Your task to perform on an android device: add a label to a message in the gmail app Image 0: 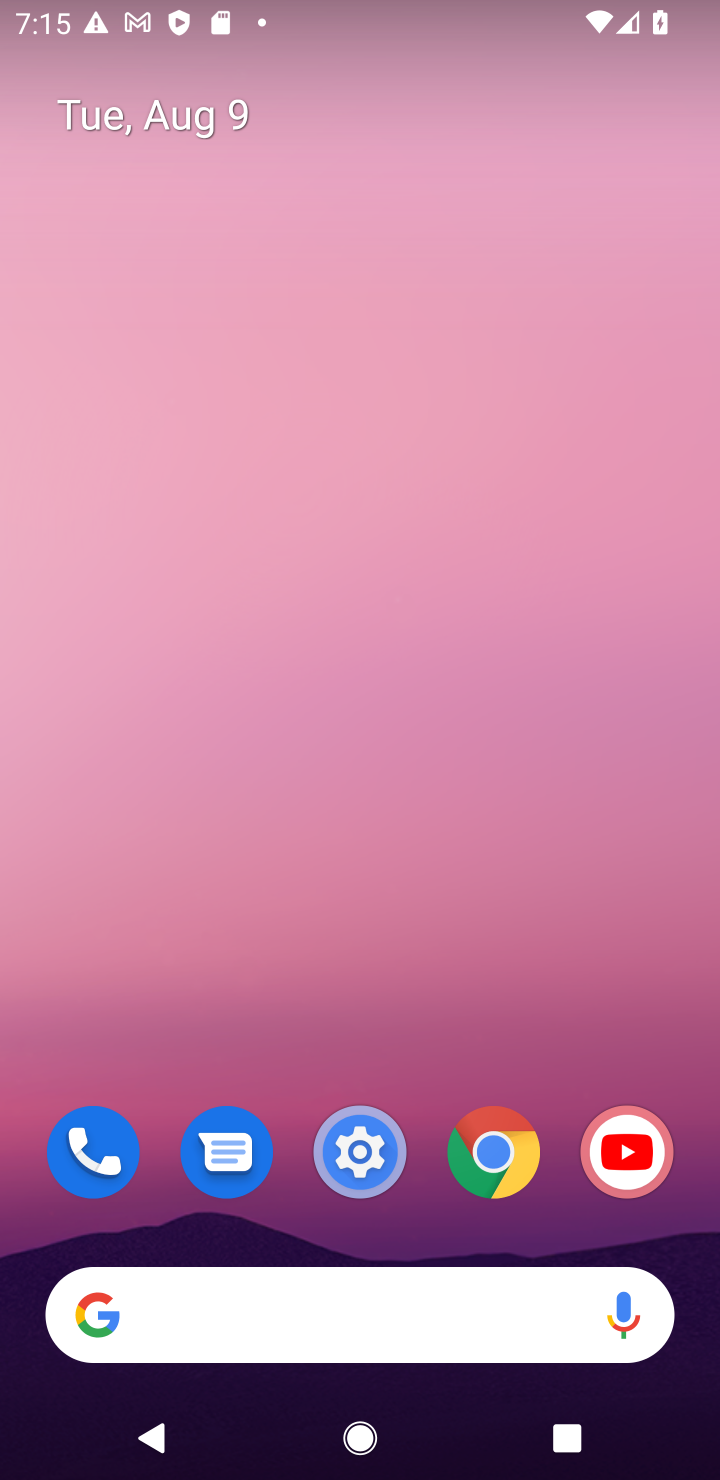
Step 0: drag from (340, 1014) to (476, 21)
Your task to perform on an android device: add a label to a message in the gmail app Image 1: 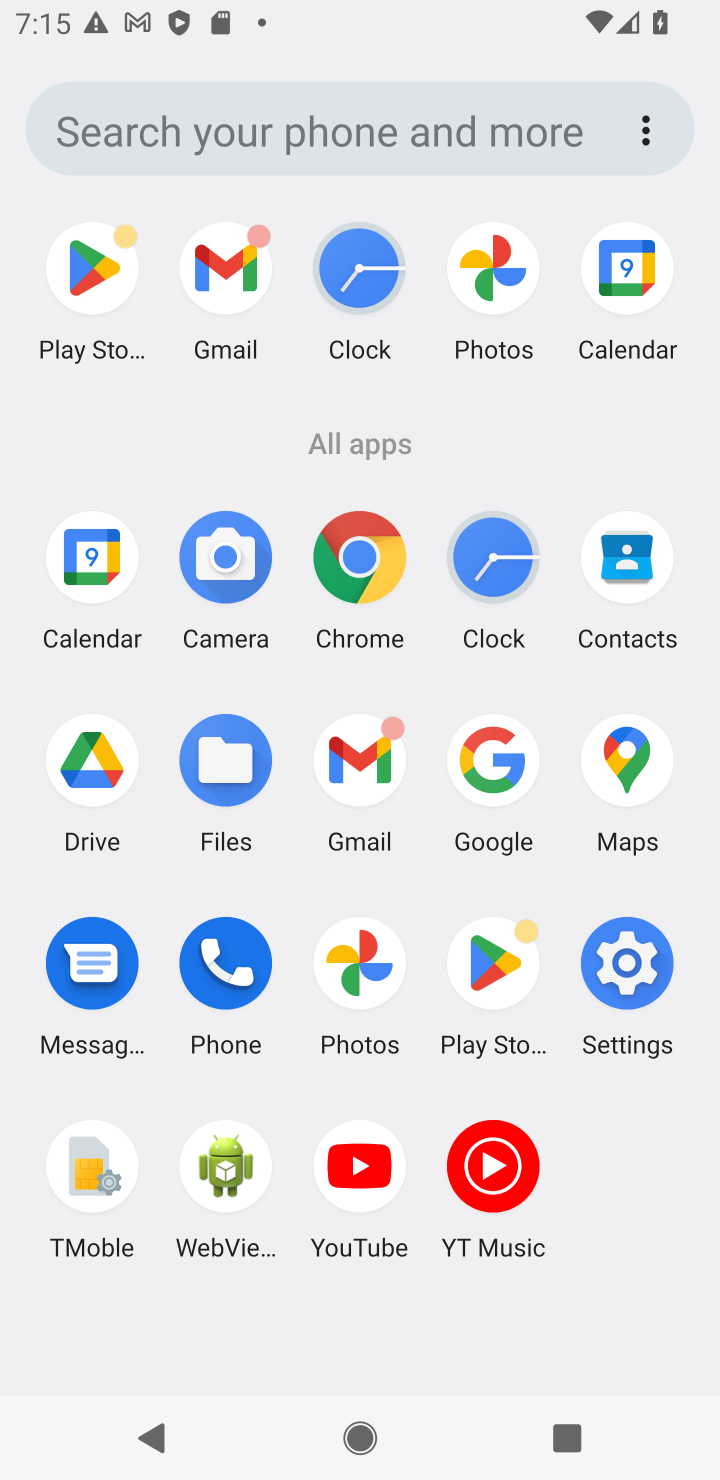
Step 1: click (244, 239)
Your task to perform on an android device: add a label to a message in the gmail app Image 2: 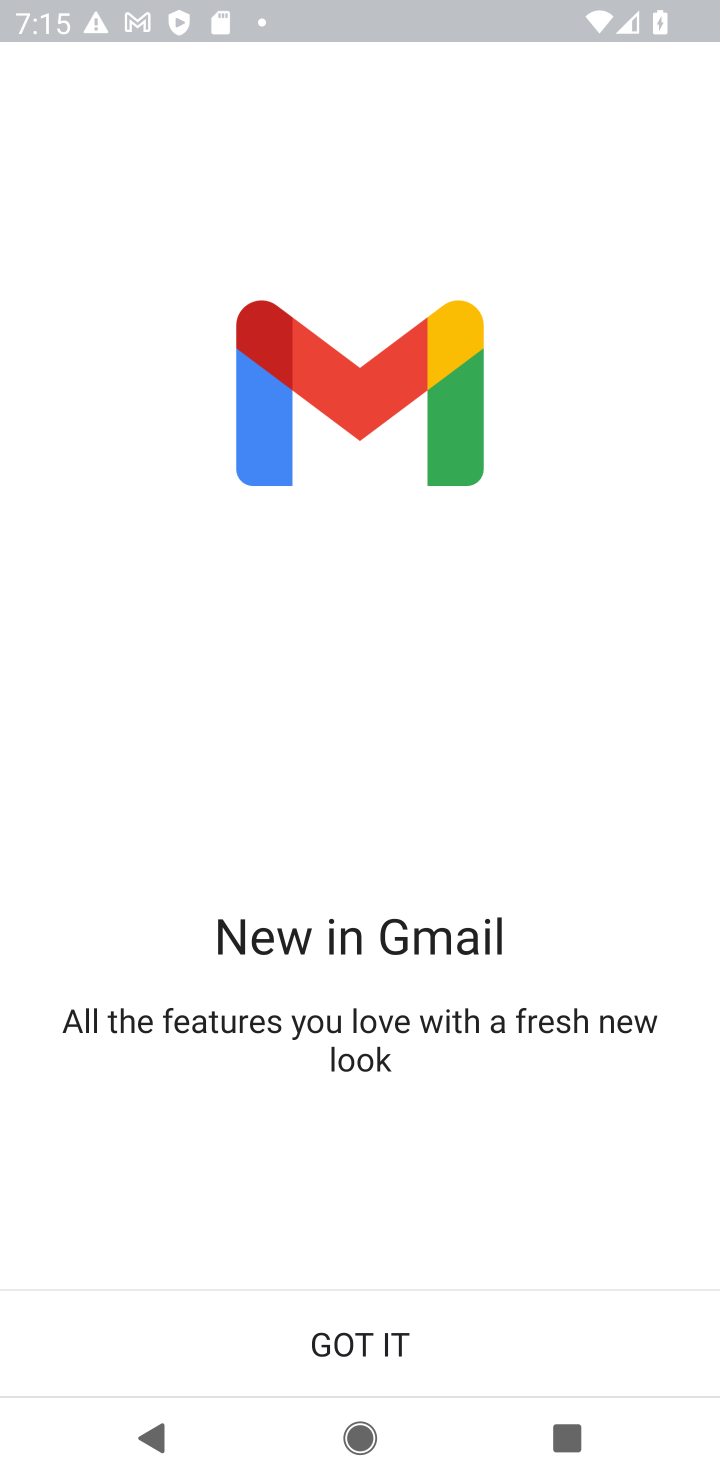
Step 2: click (342, 1372)
Your task to perform on an android device: add a label to a message in the gmail app Image 3: 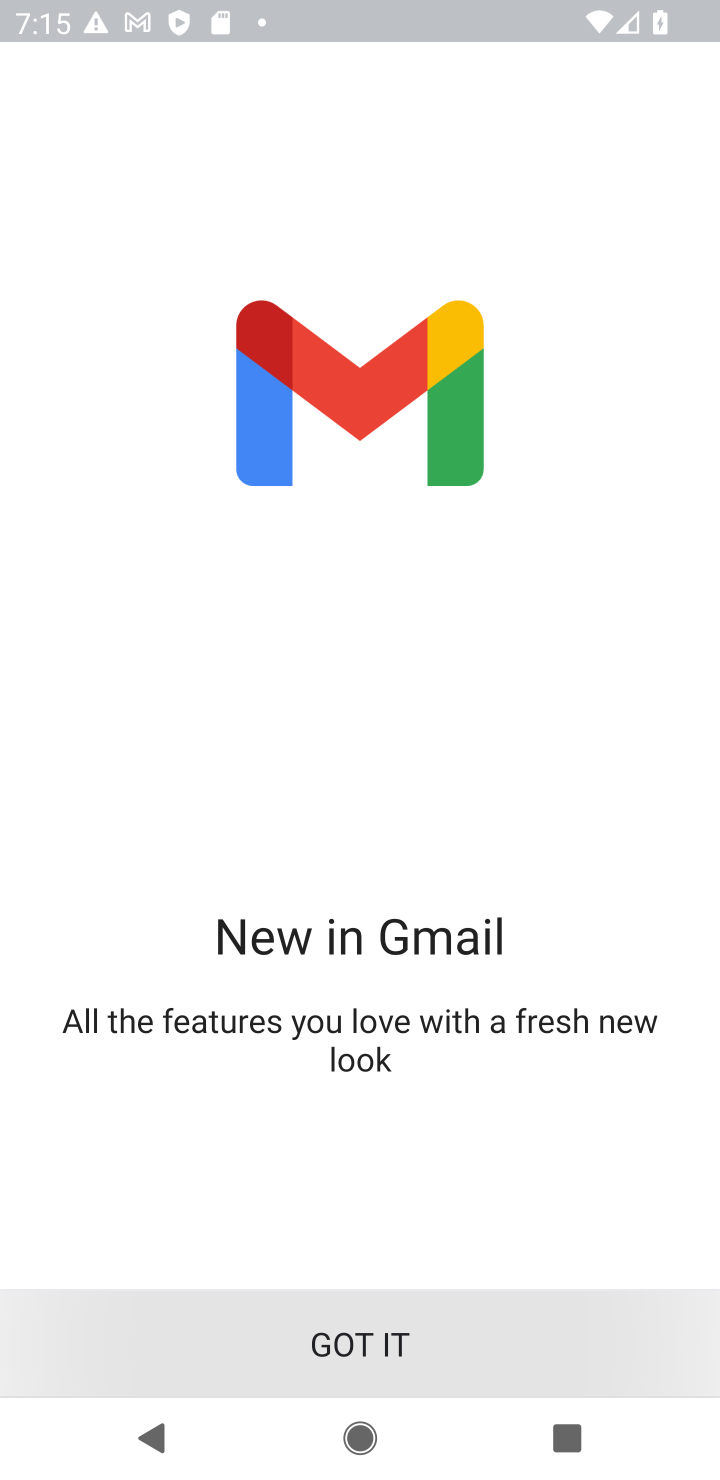
Step 3: click (342, 1372)
Your task to perform on an android device: add a label to a message in the gmail app Image 4: 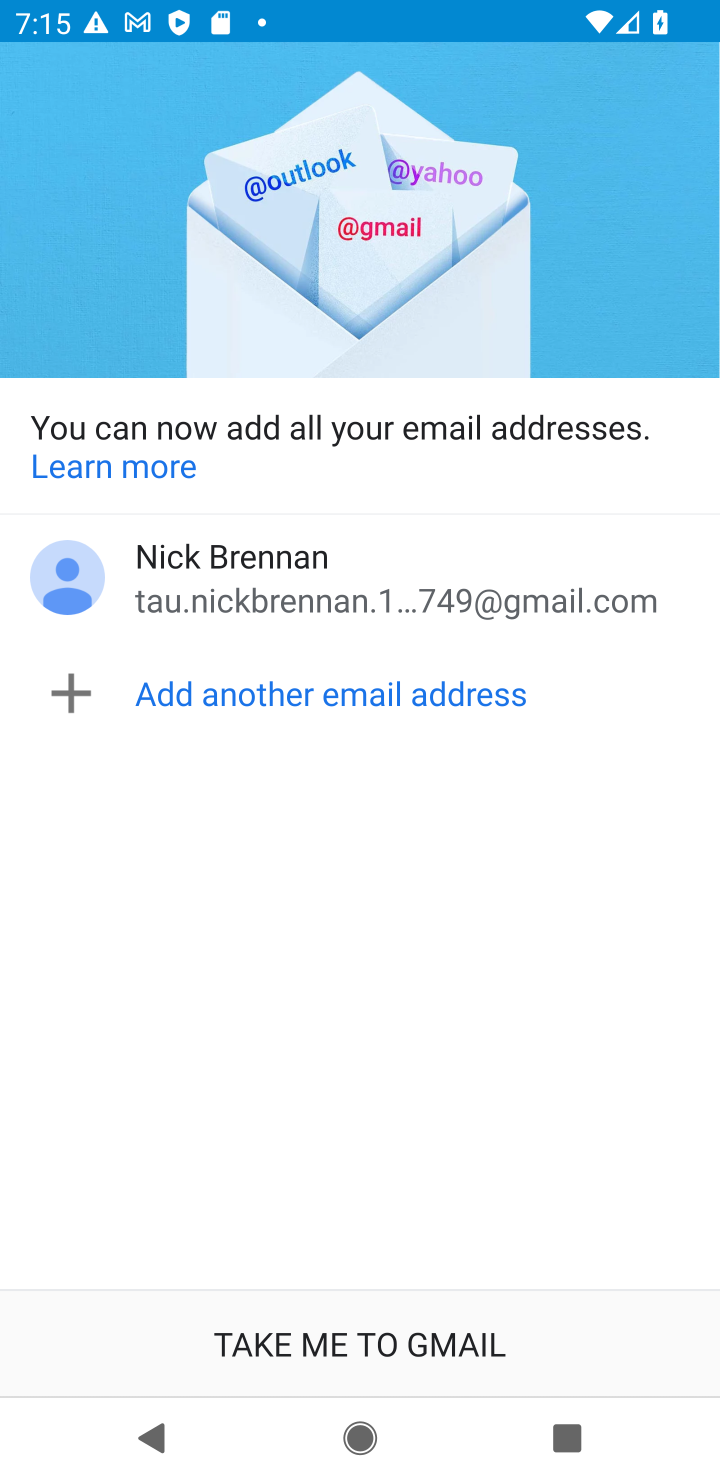
Step 4: click (337, 1374)
Your task to perform on an android device: add a label to a message in the gmail app Image 5: 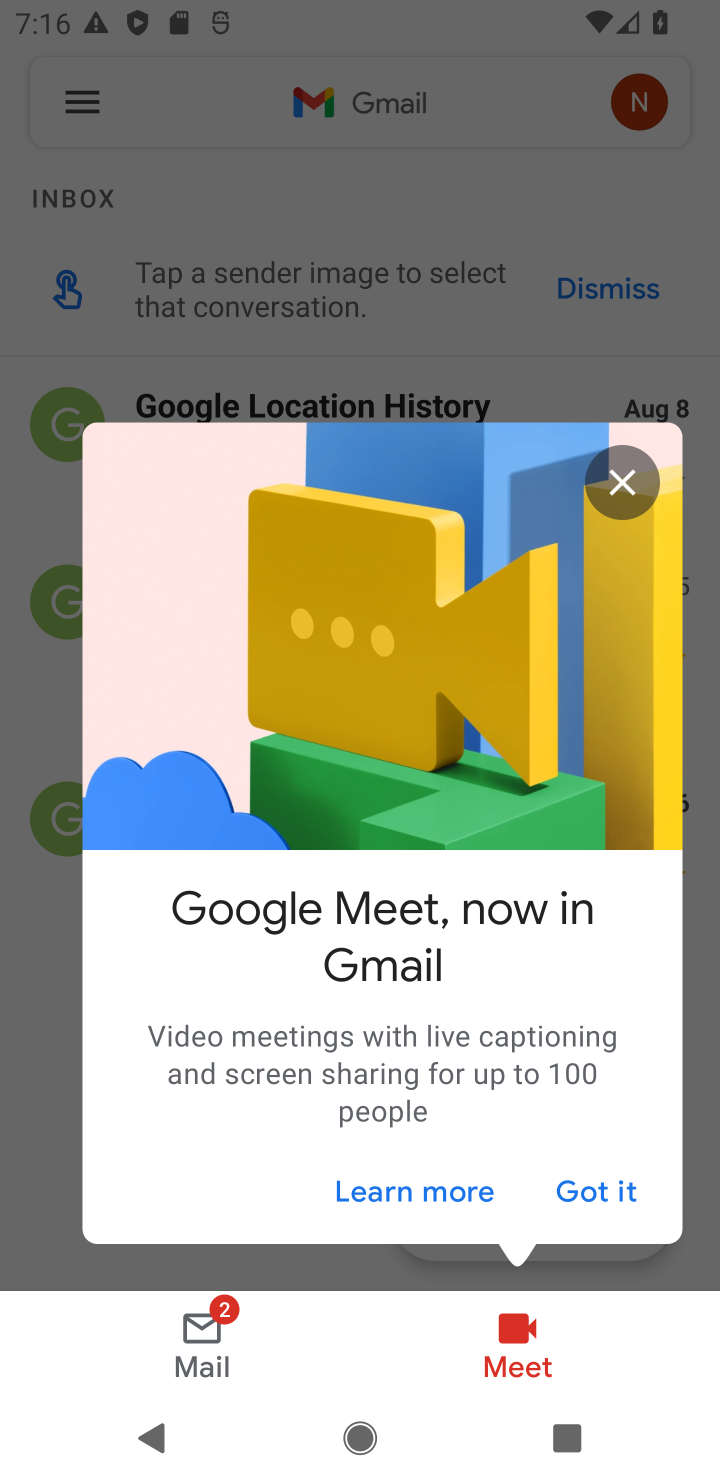
Step 5: click (583, 1180)
Your task to perform on an android device: add a label to a message in the gmail app Image 6: 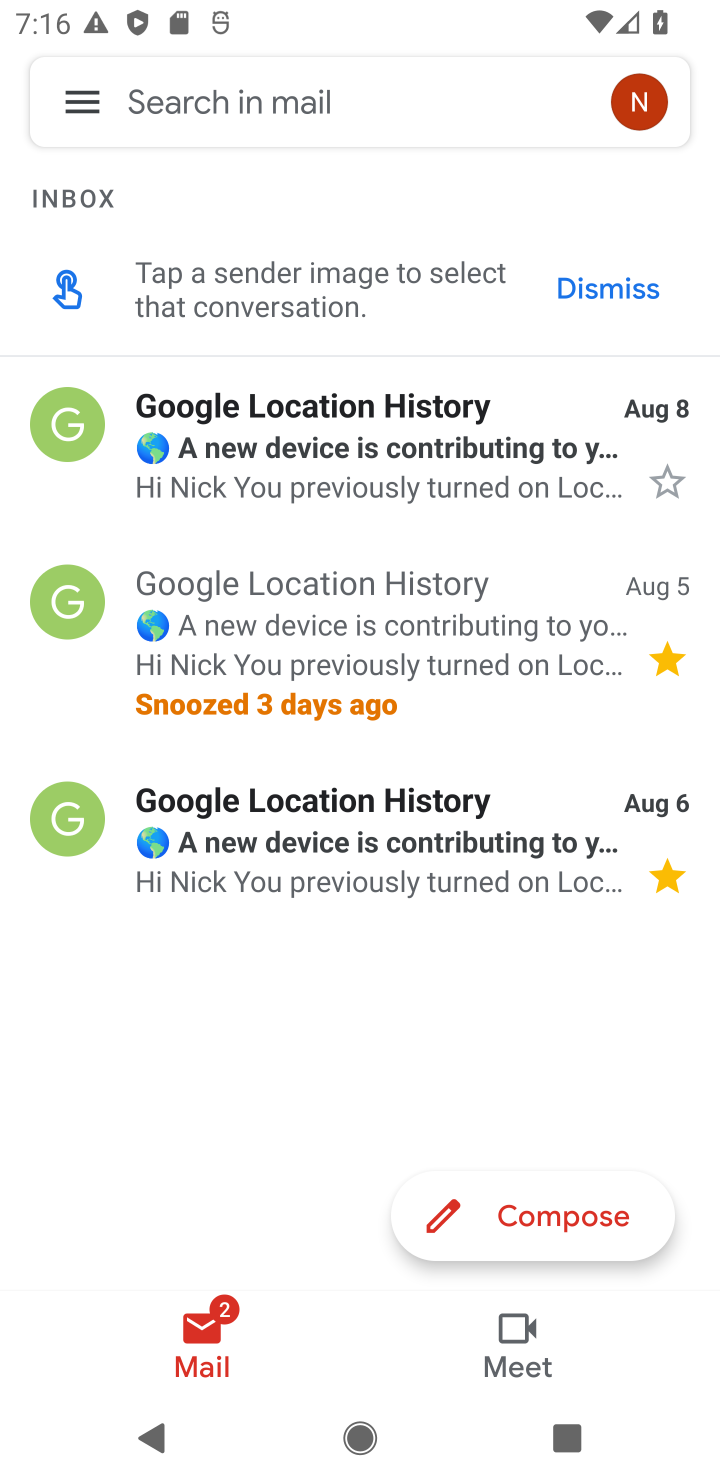
Step 6: click (74, 825)
Your task to perform on an android device: add a label to a message in the gmail app Image 7: 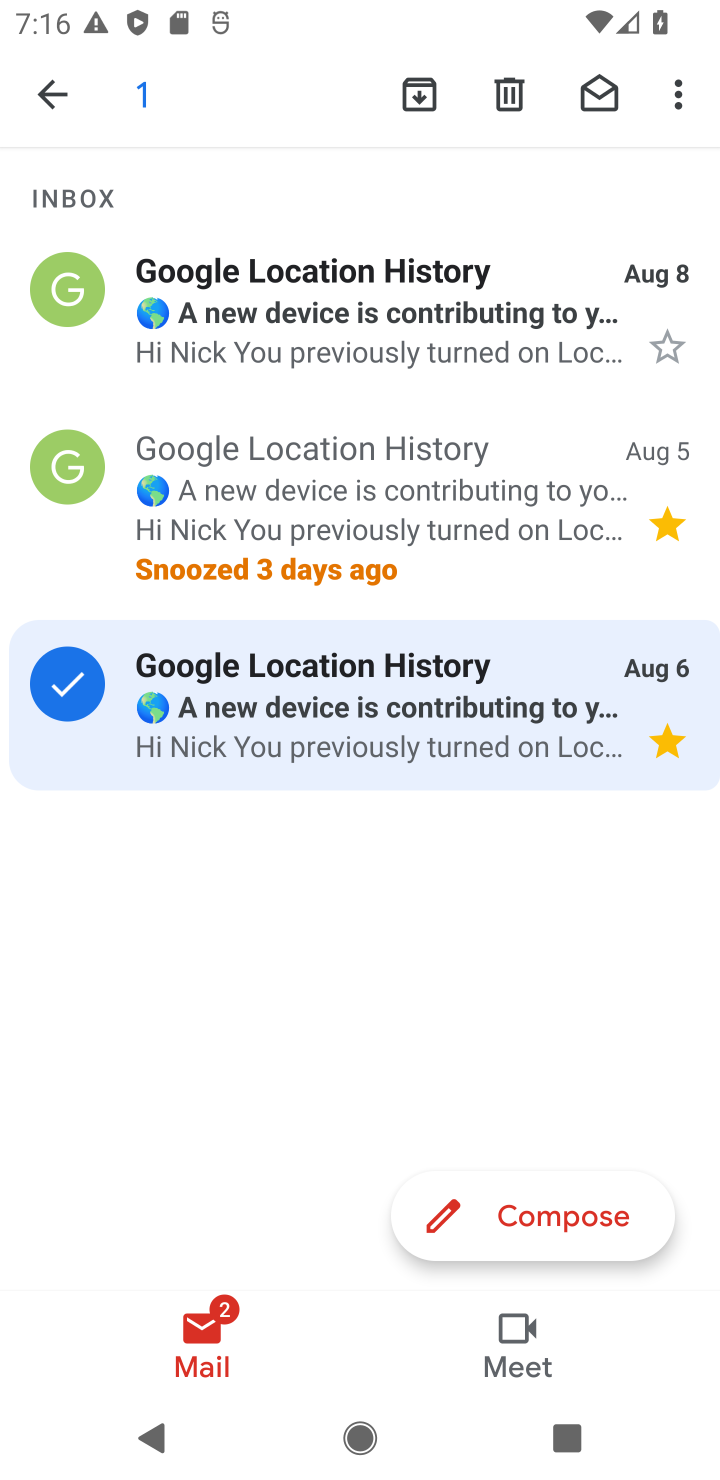
Step 7: click (685, 96)
Your task to perform on an android device: add a label to a message in the gmail app Image 8: 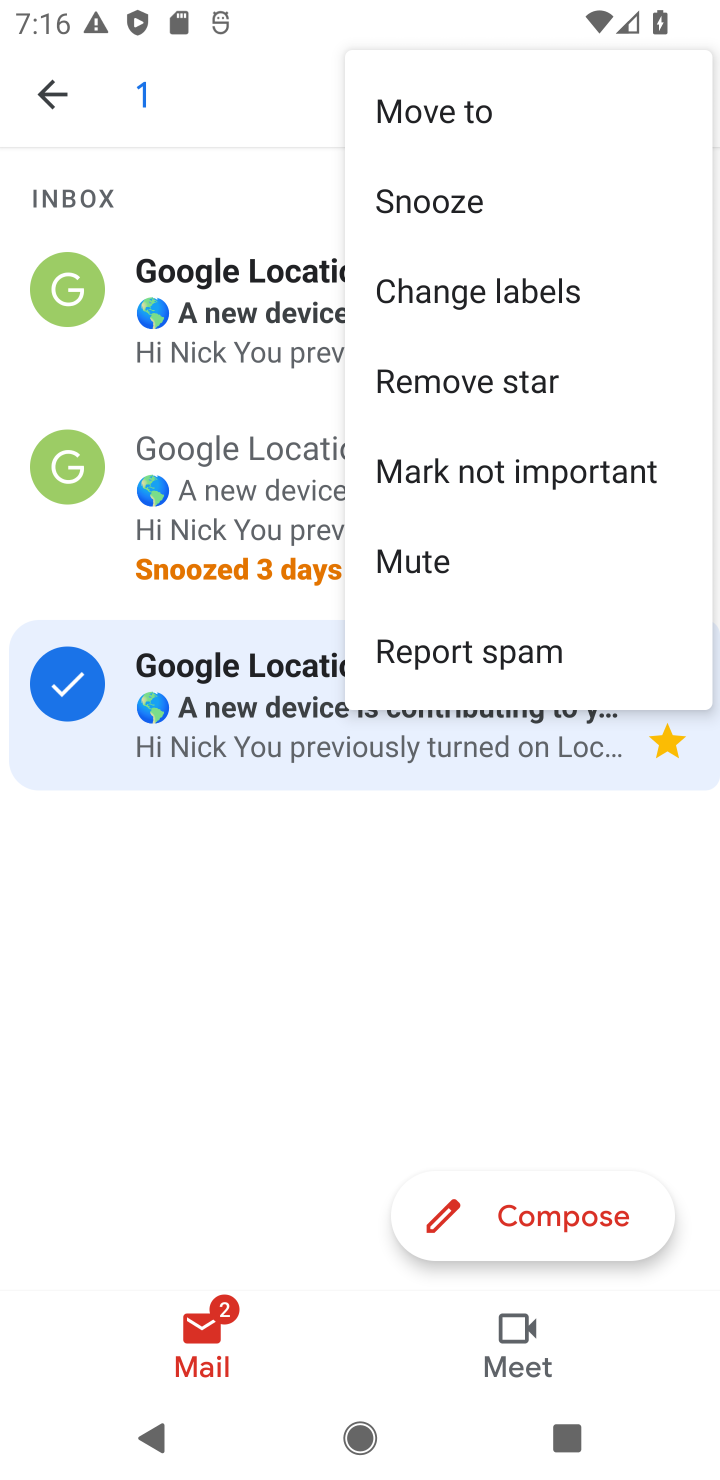
Step 8: click (512, 98)
Your task to perform on an android device: add a label to a message in the gmail app Image 9: 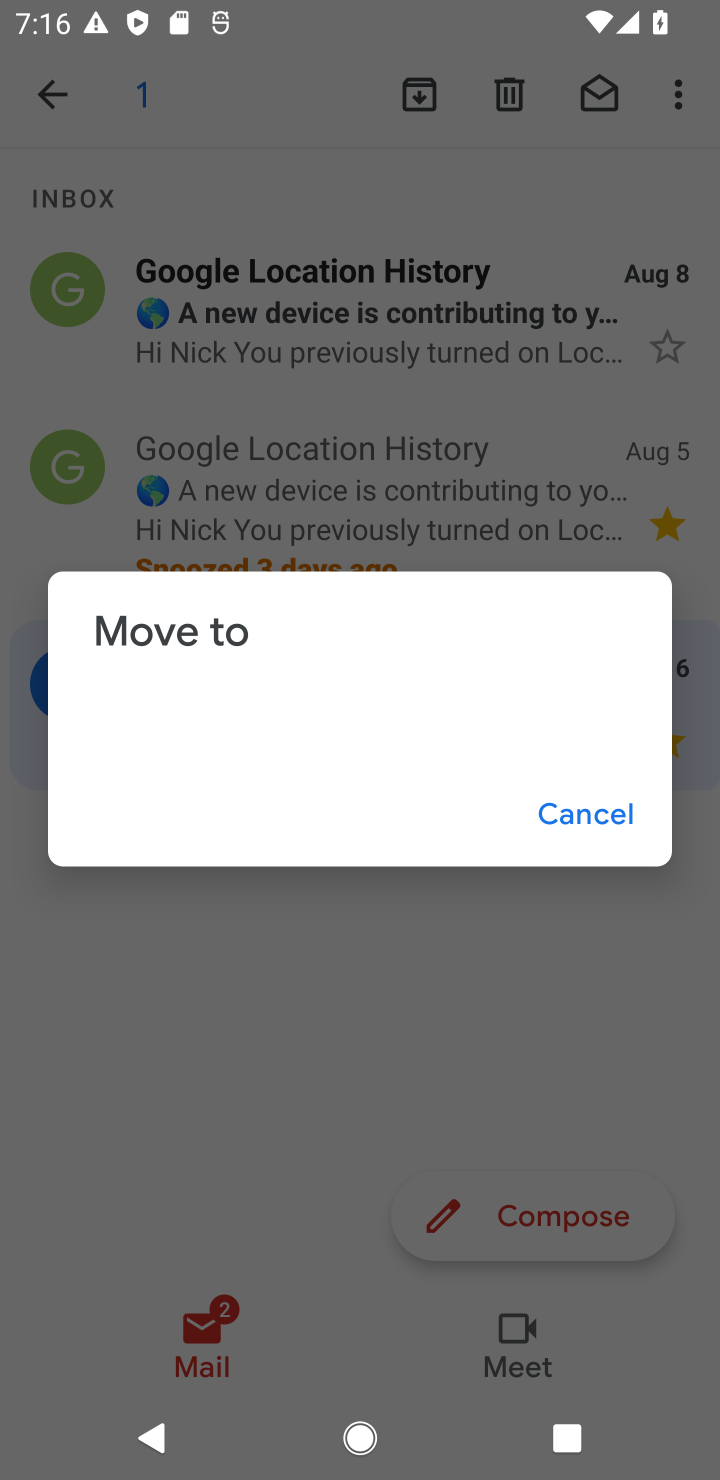
Step 9: task complete